Your task to perform on an android device: see creations saved in the google photos Image 0: 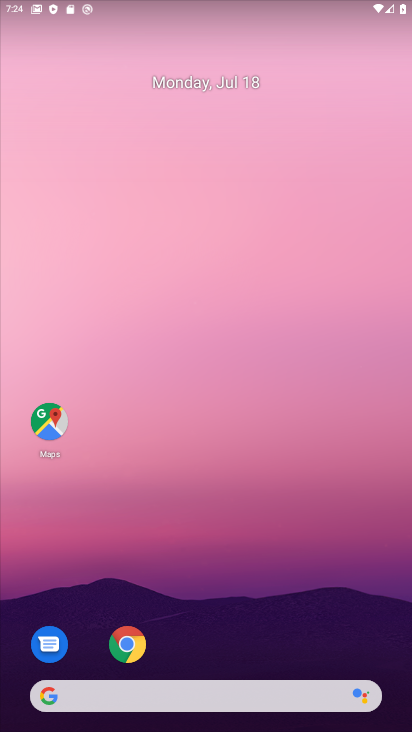
Step 0: drag from (229, 610) to (382, 131)
Your task to perform on an android device: see creations saved in the google photos Image 1: 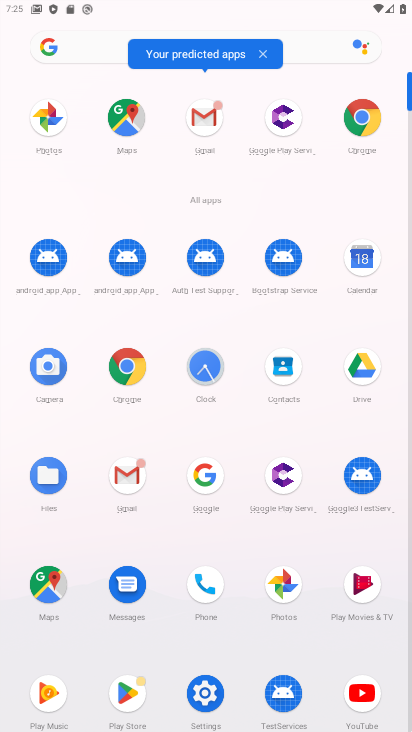
Step 1: click (287, 587)
Your task to perform on an android device: see creations saved in the google photos Image 2: 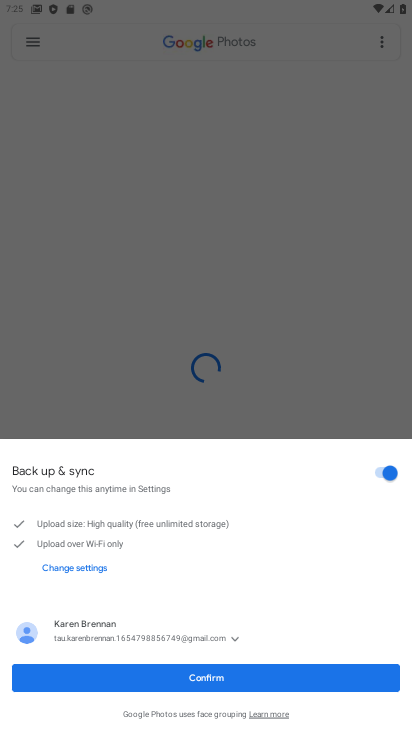
Step 2: click (208, 677)
Your task to perform on an android device: see creations saved in the google photos Image 3: 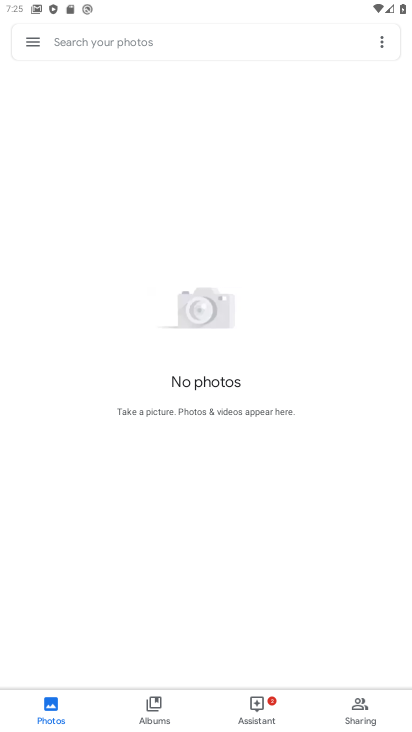
Step 3: click (153, 714)
Your task to perform on an android device: see creations saved in the google photos Image 4: 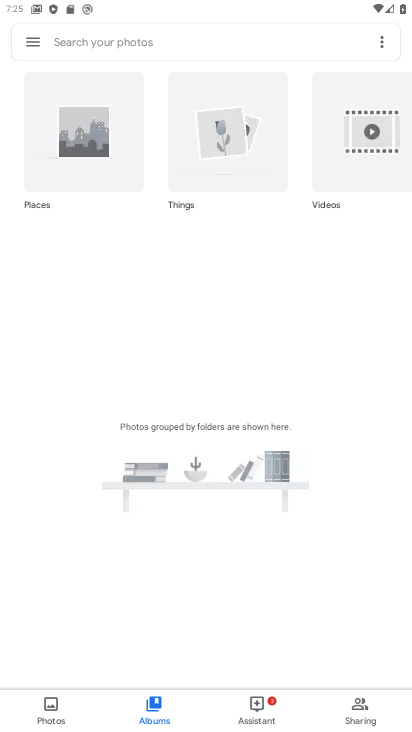
Step 4: click (163, 43)
Your task to perform on an android device: see creations saved in the google photos Image 5: 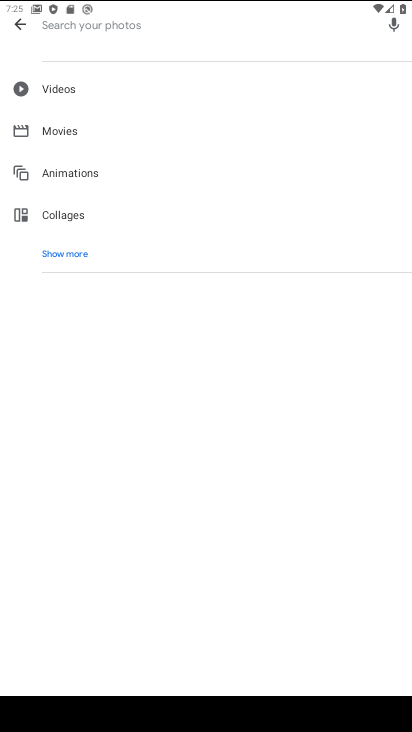
Step 5: click (56, 247)
Your task to perform on an android device: see creations saved in the google photos Image 6: 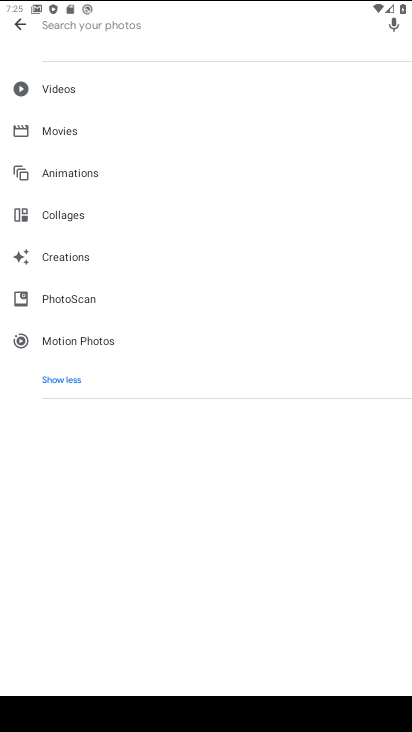
Step 6: click (47, 258)
Your task to perform on an android device: see creations saved in the google photos Image 7: 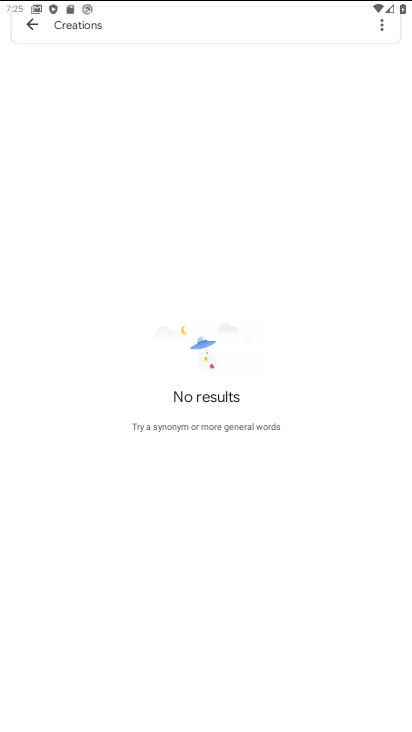
Step 7: task complete